Your task to perform on an android device: Open notification settings Image 0: 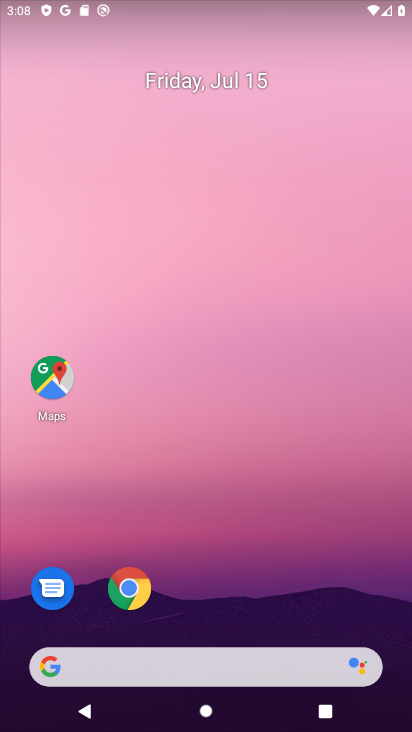
Step 0: drag from (366, 620) to (251, 52)
Your task to perform on an android device: Open notification settings Image 1: 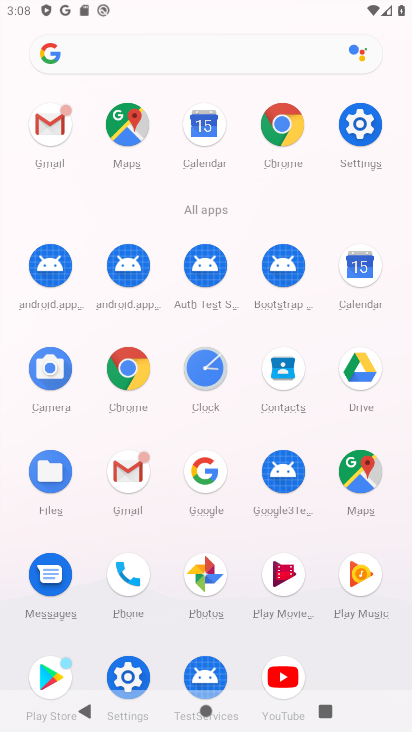
Step 1: click (362, 128)
Your task to perform on an android device: Open notification settings Image 2: 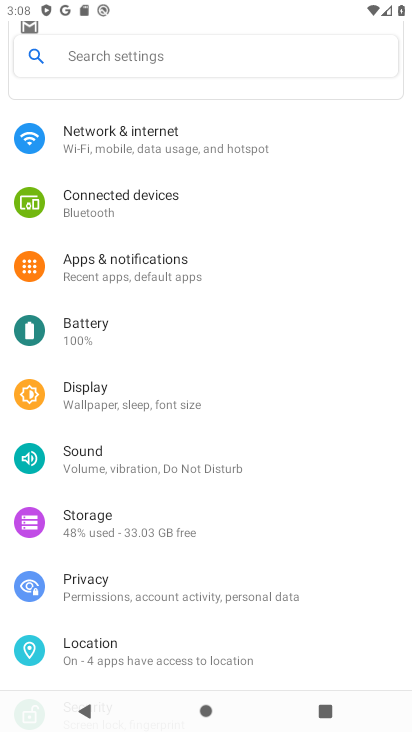
Step 2: click (185, 272)
Your task to perform on an android device: Open notification settings Image 3: 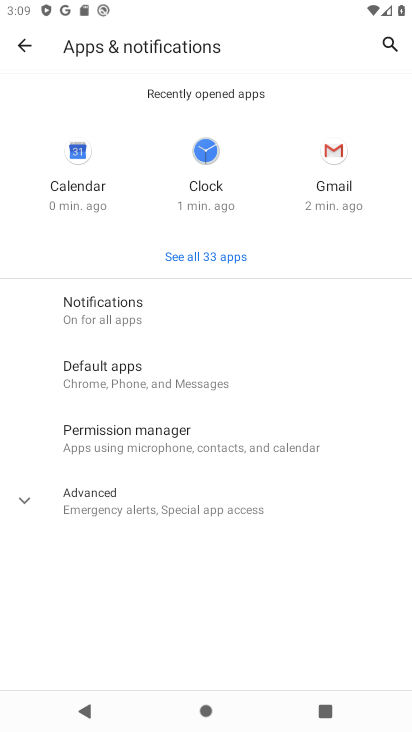
Step 3: click (198, 313)
Your task to perform on an android device: Open notification settings Image 4: 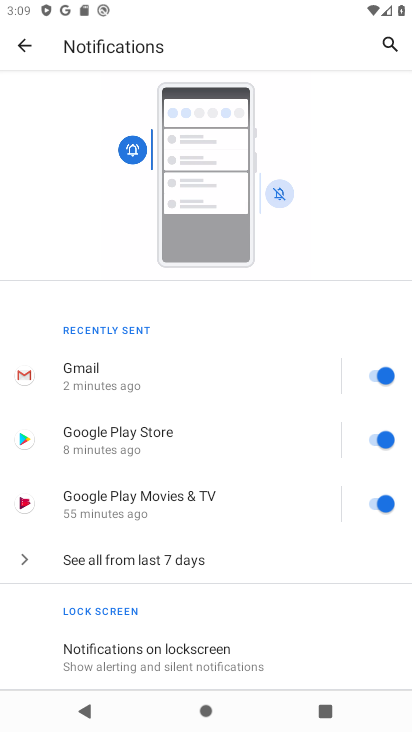
Step 4: task complete